Your task to perform on an android device: Go to Android settings Image 0: 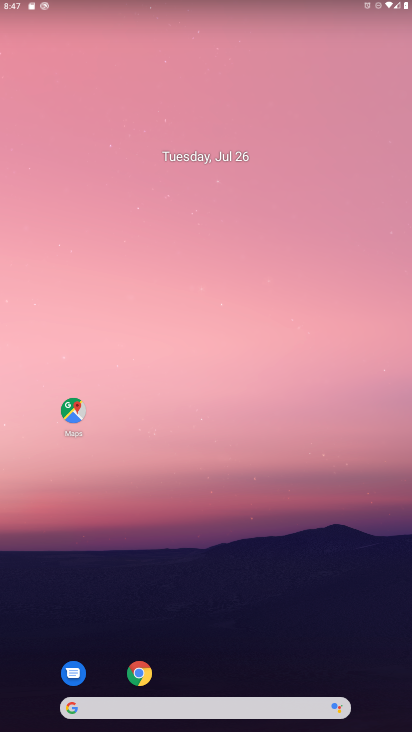
Step 0: drag from (318, 626) to (112, 60)
Your task to perform on an android device: Go to Android settings Image 1: 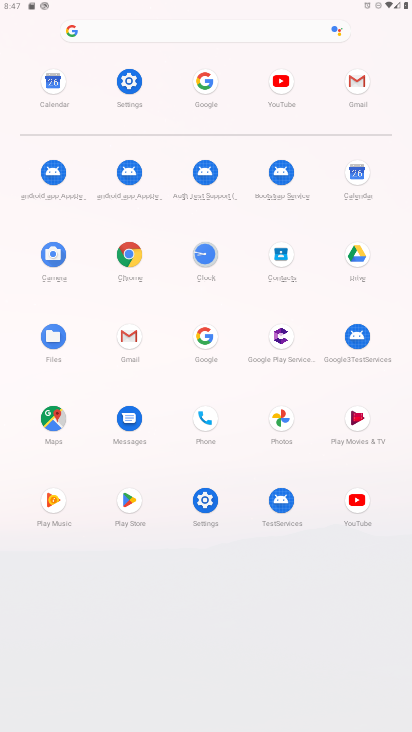
Step 1: click (186, 503)
Your task to perform on an android device: Go to Android settings Image 2: 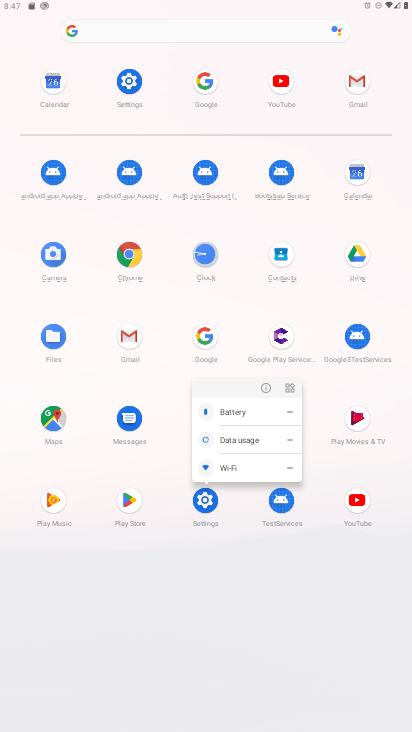
Step 2: click (202, 509)
Your task to perform on an android device: Go to Android settings Image 3: 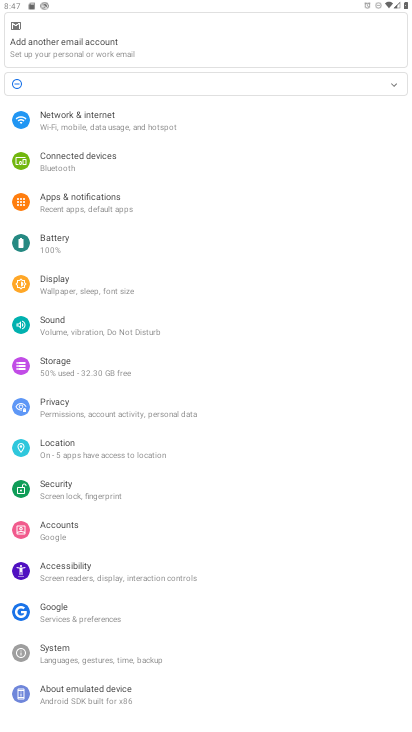
Step 3: task complete